Your task to perform on an android device: Open battery settings Image 0: 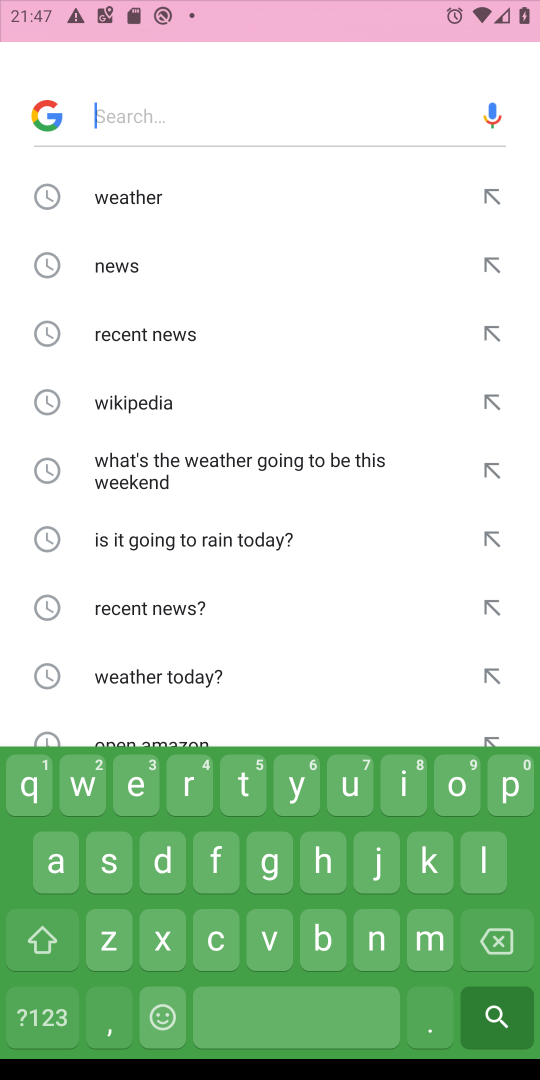
Step 0: press home button
Your task to perform on an android device: Open battery settings Image 1: 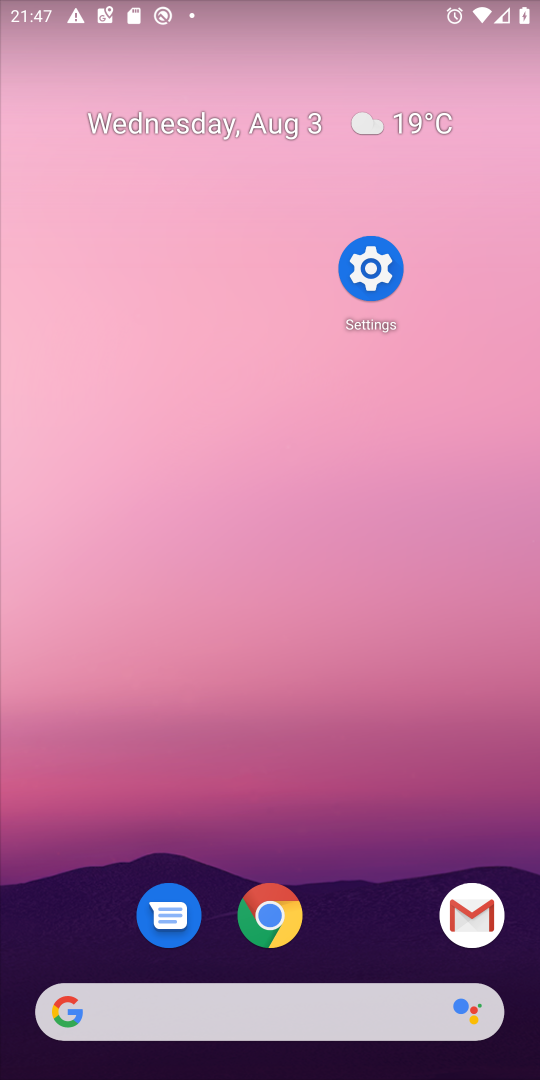
Step 1: drag from (342, 1044) to (274, 432)
Your task to perform on an android device: Open battery settings Image 2: 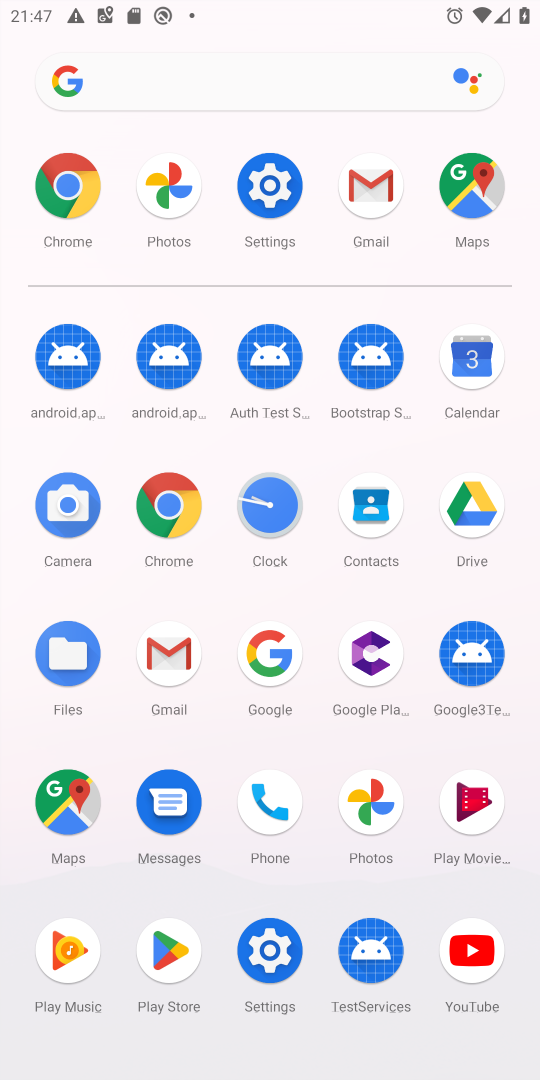
Step 2: click (291, 181)
Your task to perform on an android device: Open battery settings Image 3: 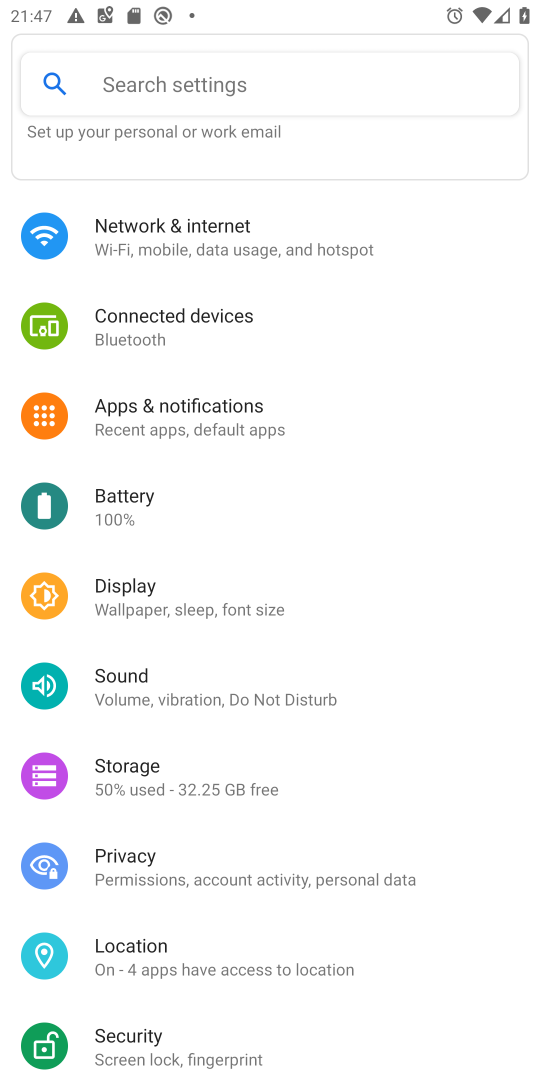
Step 3: click (170, 482)
Your task to perform on an android device: Open battery settings Image 4: 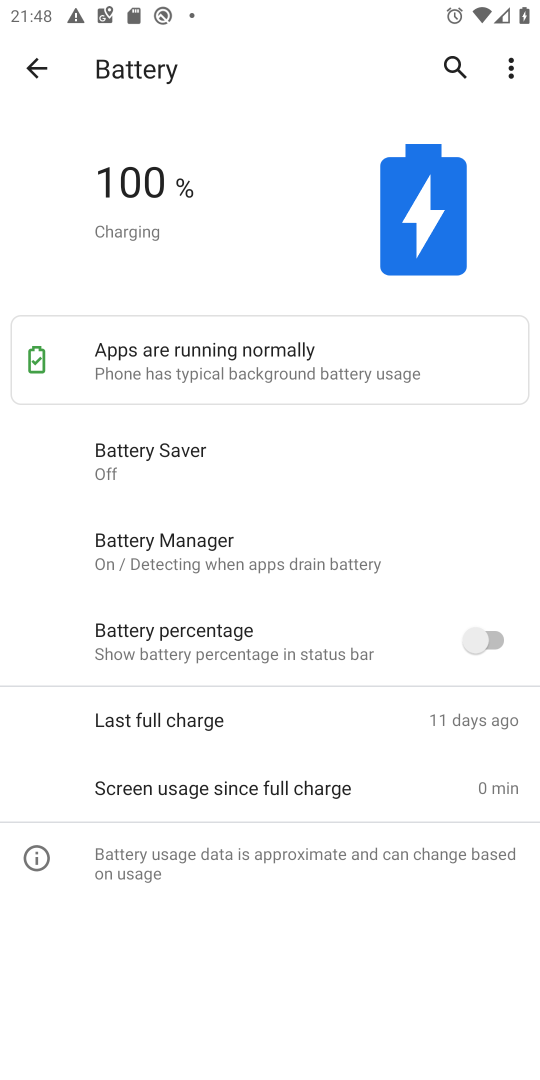
Step 4: task complete